Your task to perform on an android device: install app "ColorNote Notepad Notes" Image 0: 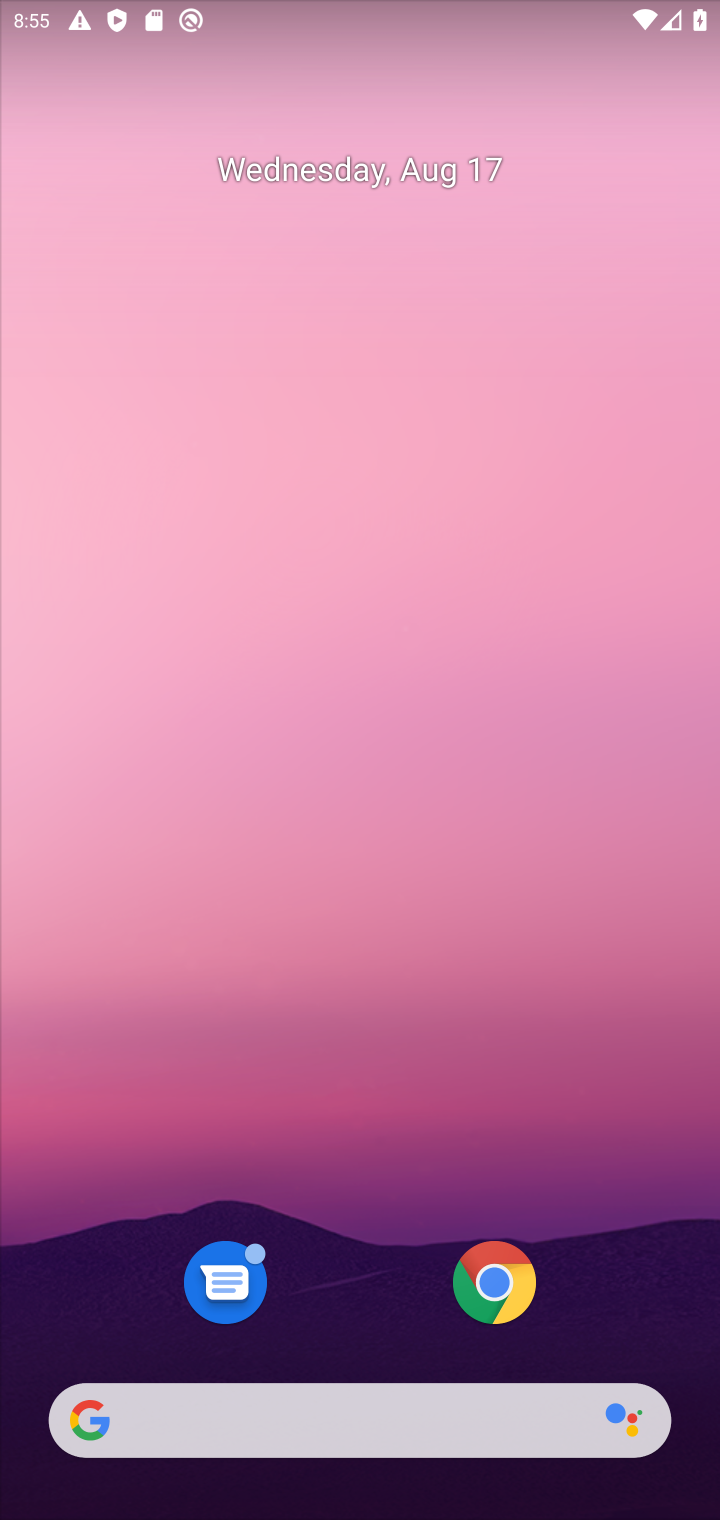
Step 0: drag from (351, 1352) to (197, 186)
Your task to perform on an android device: install app "ColorNote Notepad Notes" Image 1: 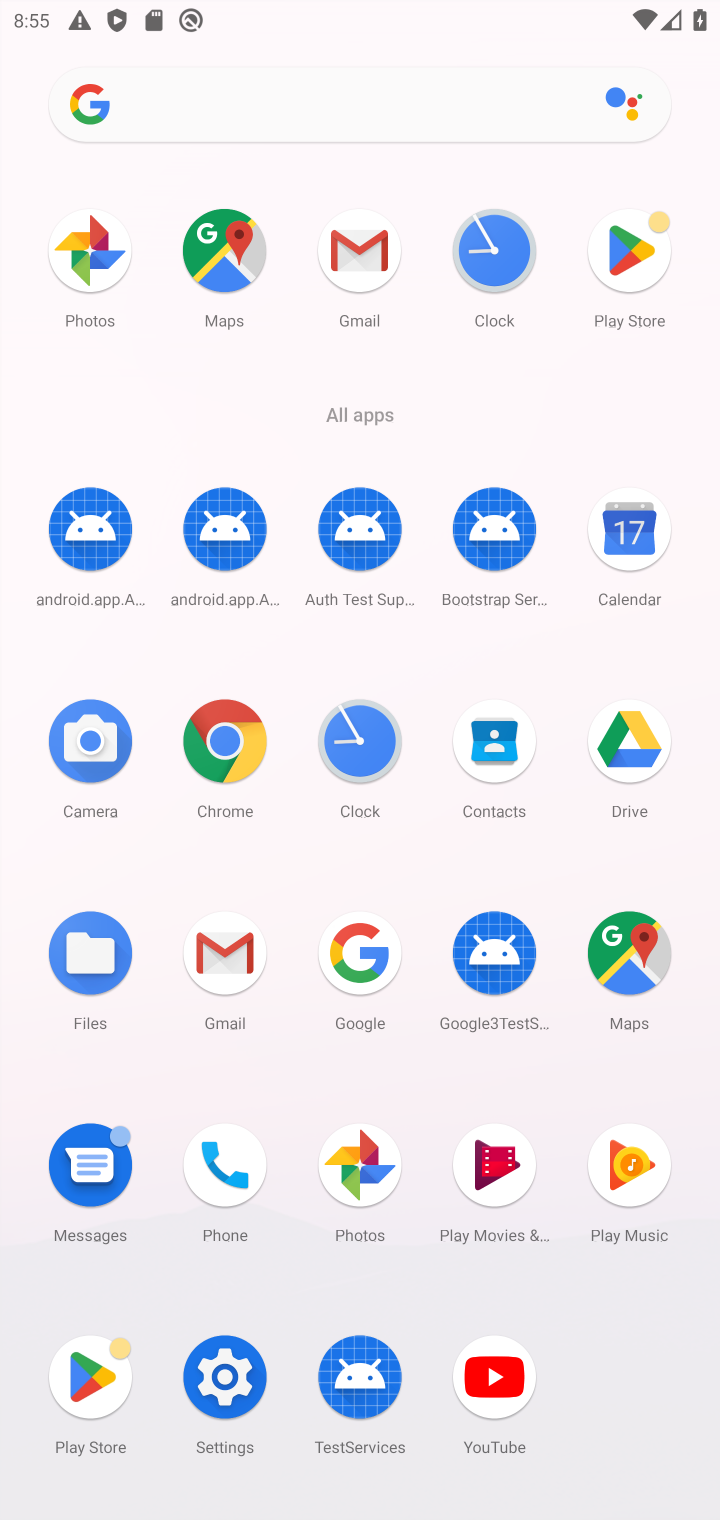
Step 1: click (110, 1399)
Your task to perform on an android device: install app "ColorNote Notepad Notes" Image 2: 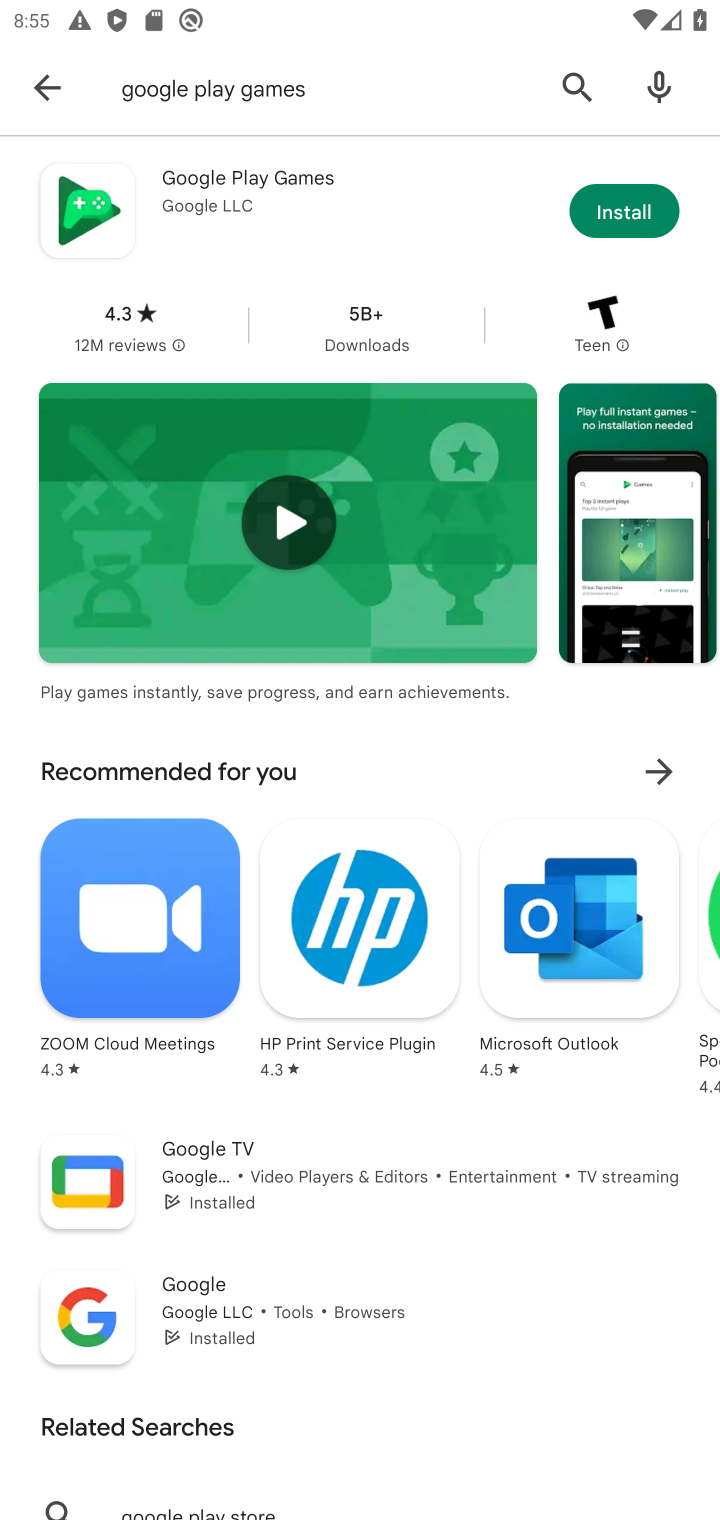
Step 2: click (29, 92)
Your task to perform on an android device: install app "ColorNote Notepad Notes" Image 3: 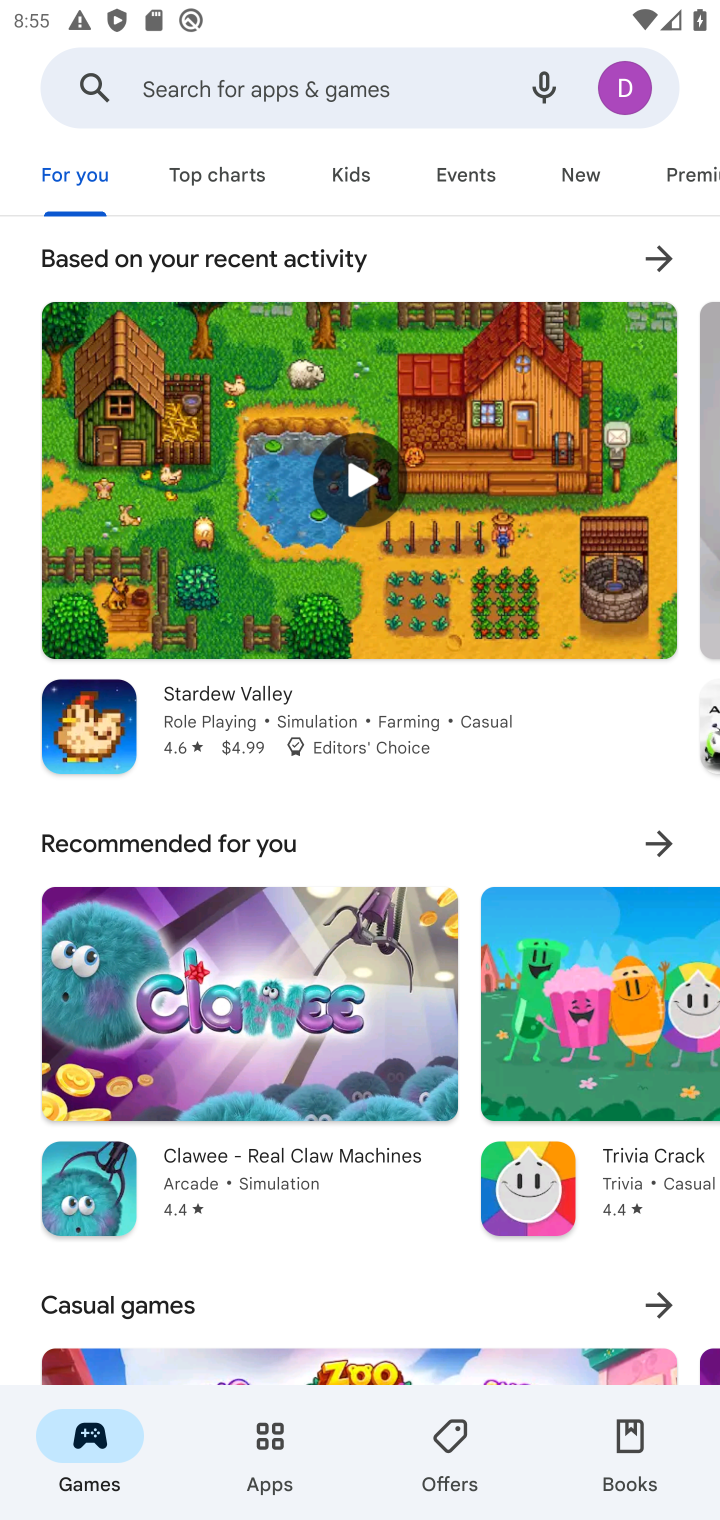
Step 3: click (211, 74)
Your task to perform on an android device: install app "ColorNote Notepad Notes" Image 4: 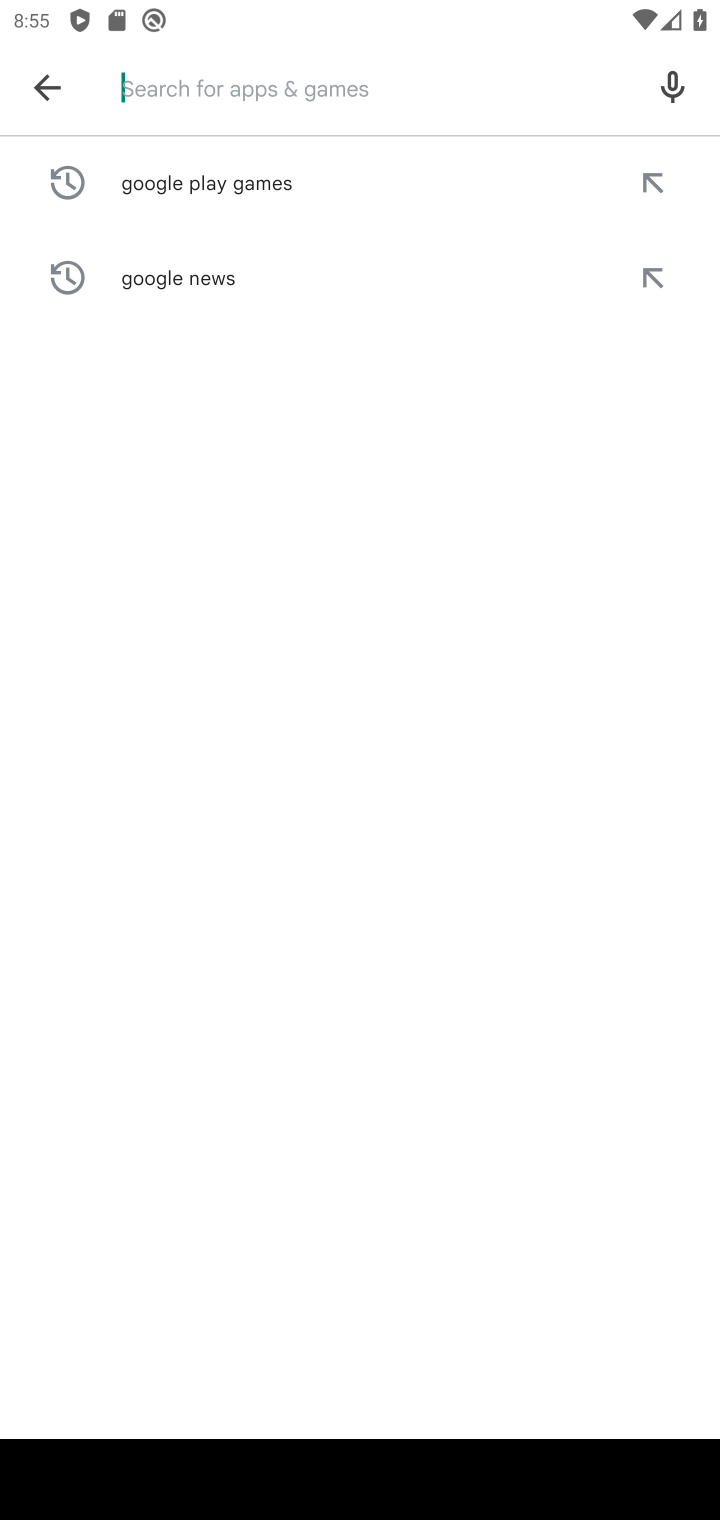
Step 4: type "ColorNote Notepad Notes"
Your task to perform on an android device: install app "ColorNote Notepad Notes" Image 5: 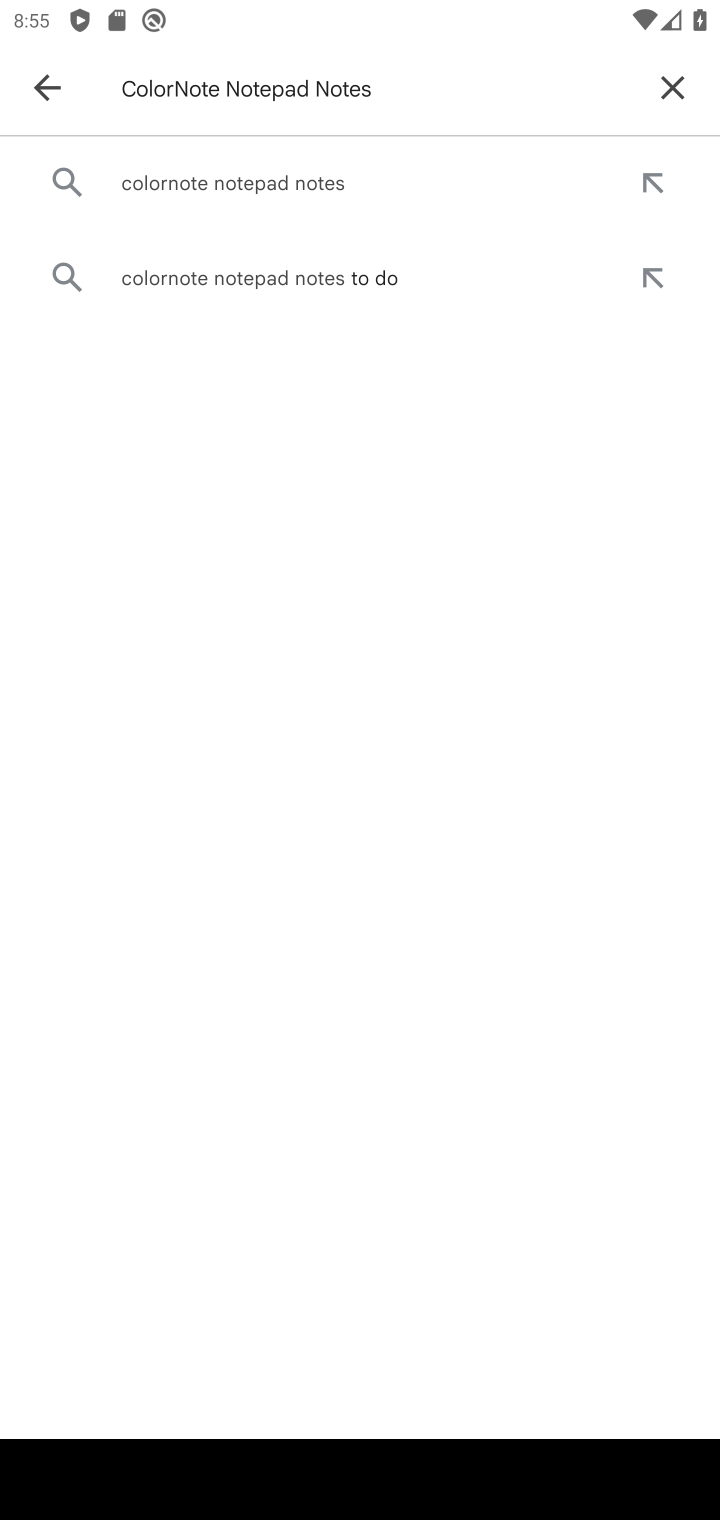
Step 5: click (174, 199)
Your task to perform on an android device: install app "ColorNote Notepad Notes" Image 6: 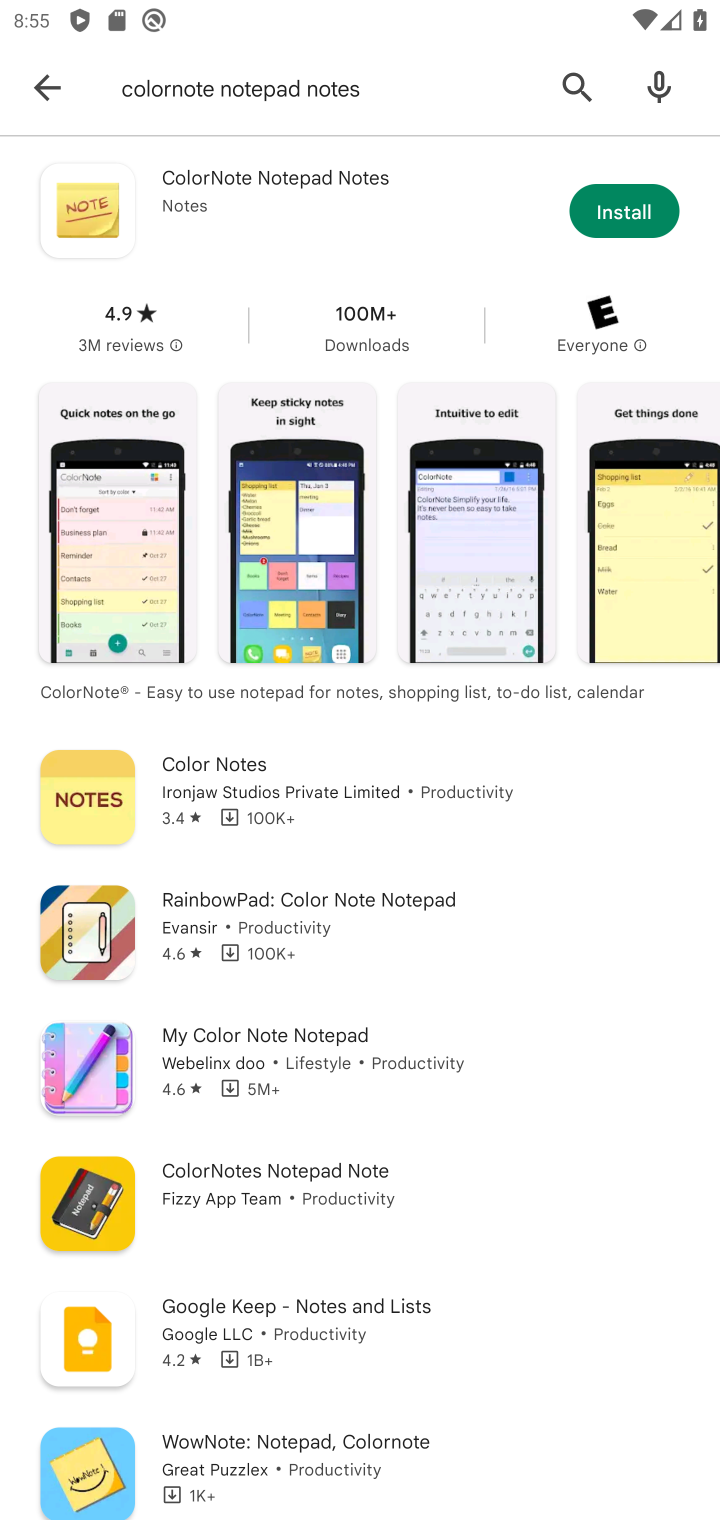
Step 6: click (619, 227)
Your task to perform on an android device: install app "ColorNote Notepad Notes" Image 7: 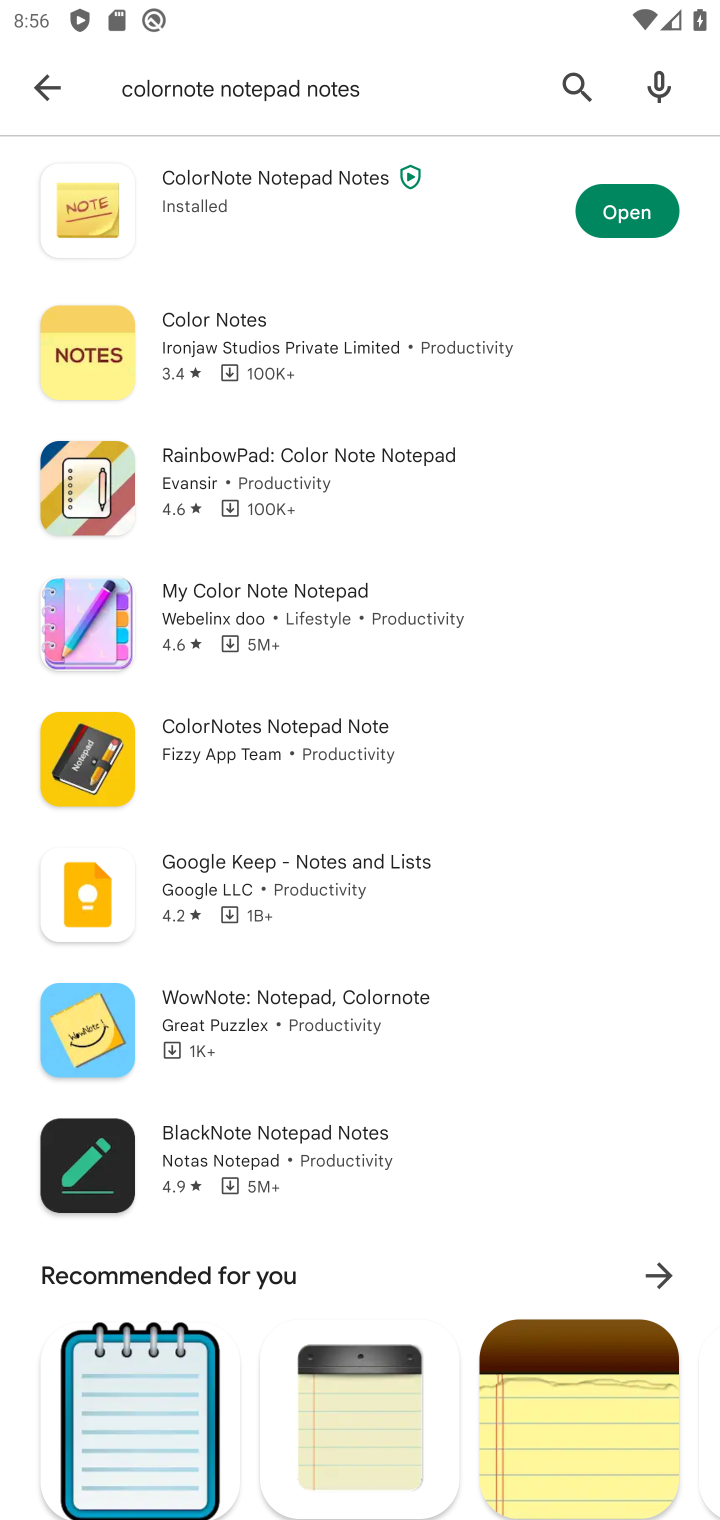
Step 7: click (641, 220)
Your task to perform on an android device: install app "ColorNote Notepad Notes" Image 8: 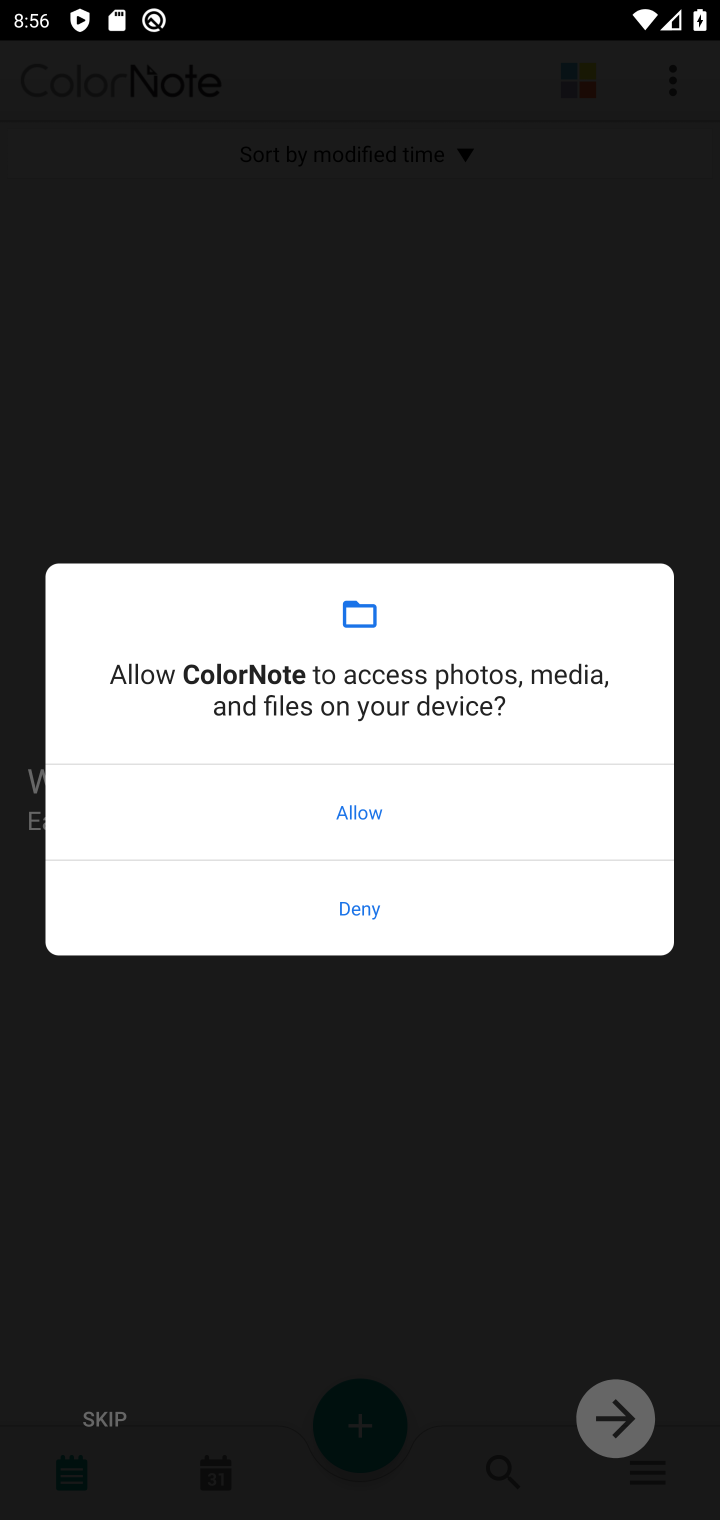
Step 8: task complete